Your task to perform on an android device: Go to battery settings Image 0: 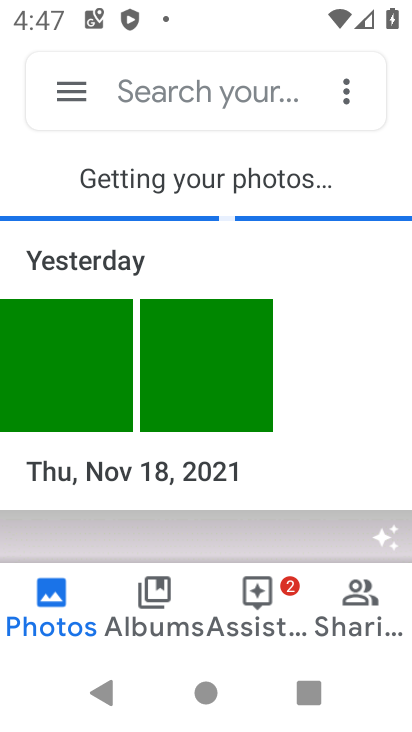
Step 0: press home button
Your task to perform on an android device: Go to battery settings Image 1: 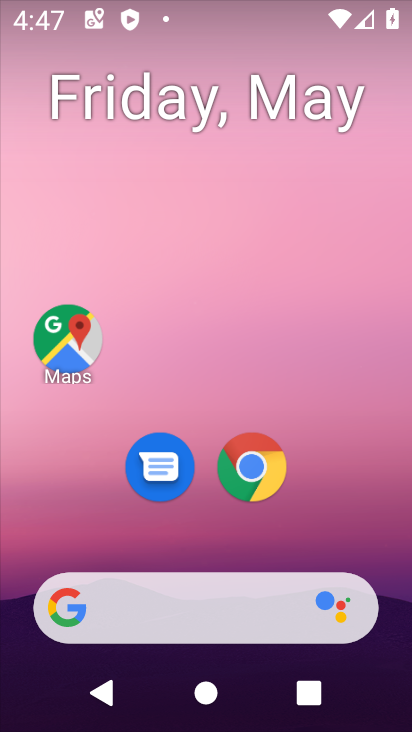
Step 1: drag from (295, 537) to (195, 45)
Your task to perform on an android device: Go to battery settings Image 2: 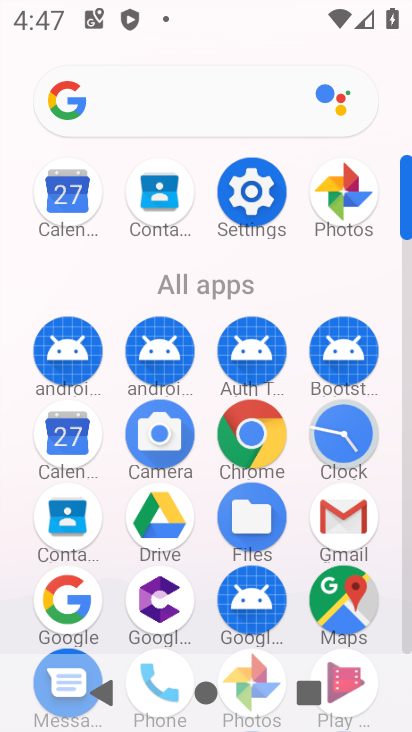
Step 2: click (257, 172)
Your task to perform on an android device: Go to battery settings Image 3: 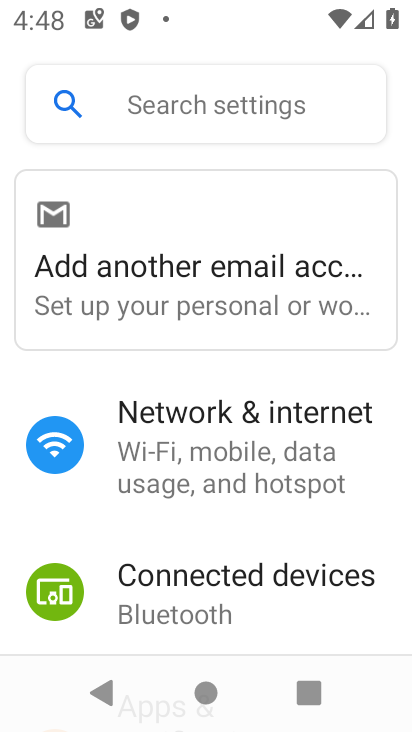
Step 3: drag from (266, 571) to (286, 160)
Your task to perform on an android device: Go to battery settings Image 4: 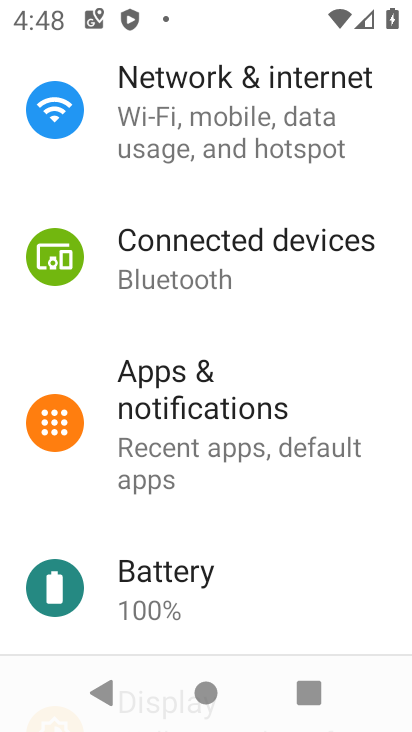
Step 4: click (178, 591)
Your task to perform on an android device: Go to battery settings Image 5: 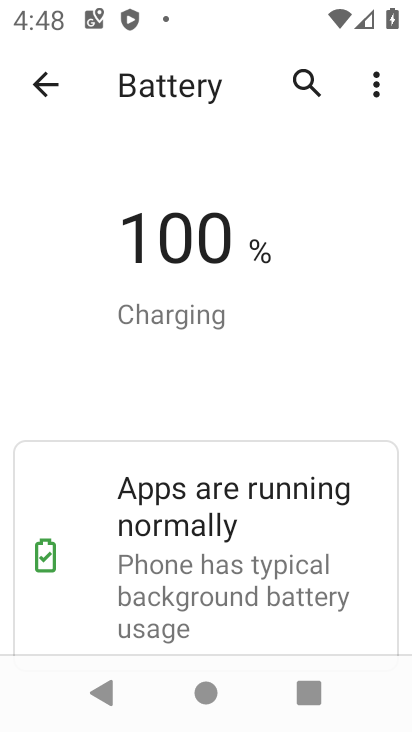
Step 5: task complete